Your task to perform on an android device: Search for Italian restaurants on Maps Image 0: 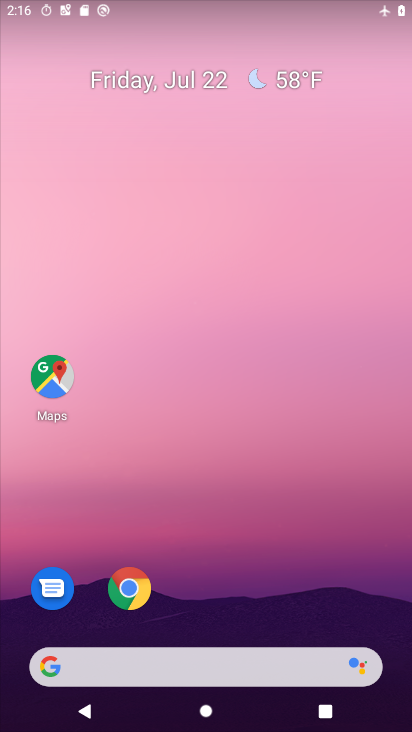
Step 0: press home button
Your task to perform on an android device: Search for Italian restaurants on Maps Image 1: 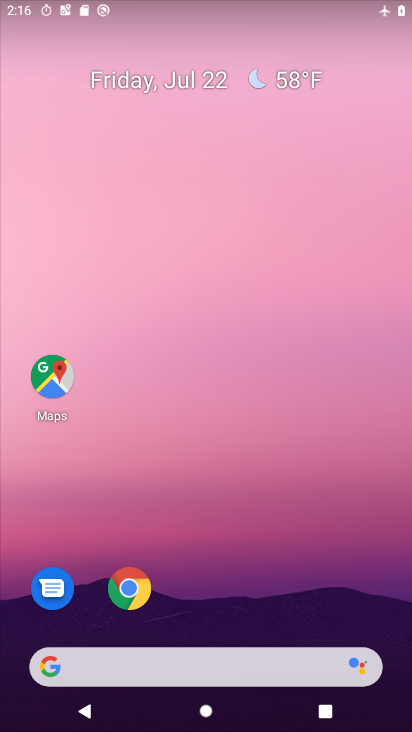
Step 1: click (59, 372)
Your task to perform on an android device: Search for Italian restaurants on Maps Image 2: 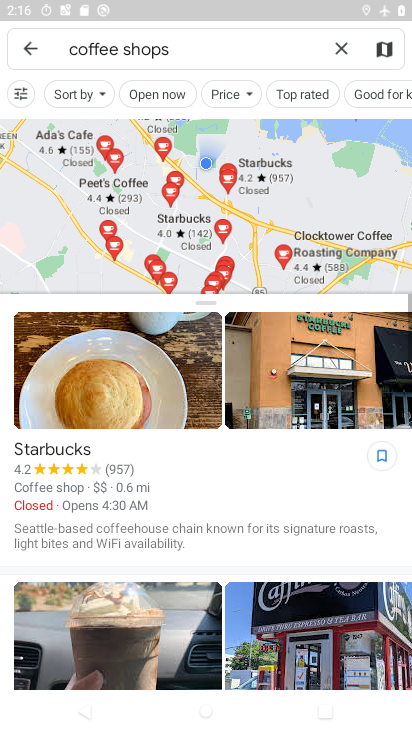
Step 2: click (346, 44)
Your task to perform on an android device: Search for Italian restaurants on Maps Image 3: 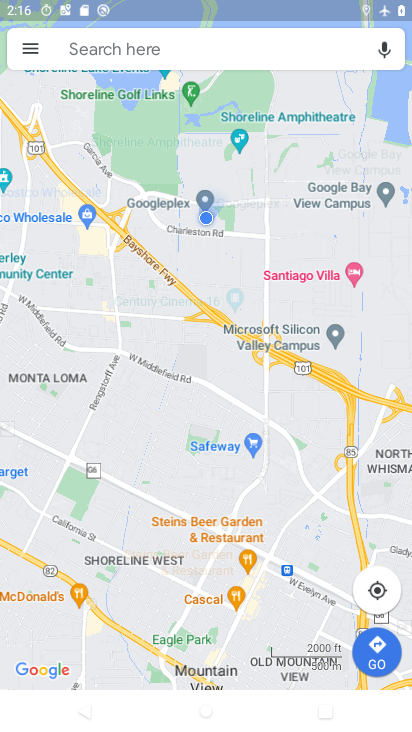
Step 3: click (310, 44)
Your task to perform on an android device: Search for Italian restaurants on Maps Image 4: 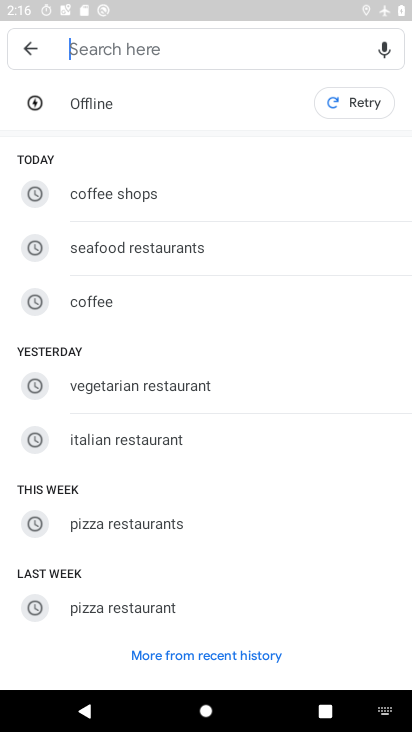
Step 4: type "Italian restaurants"
Your task to perform on an android device: Search for Italian restaurants on Maps Image 5: 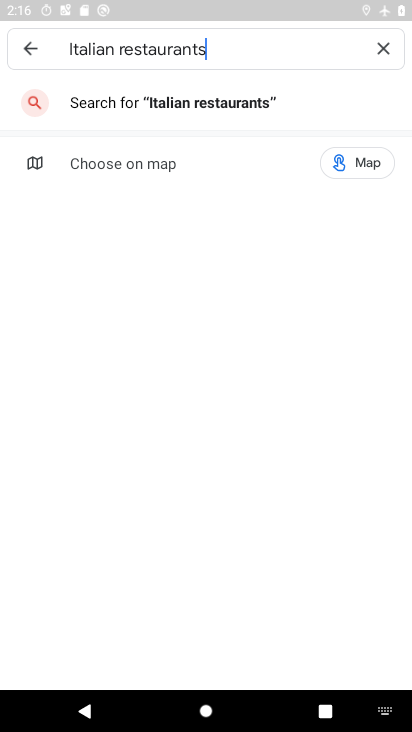
Step 5: click (166, 98)
Your task to perform on an android device: Search for Italian restaurants on Maps Image 6: 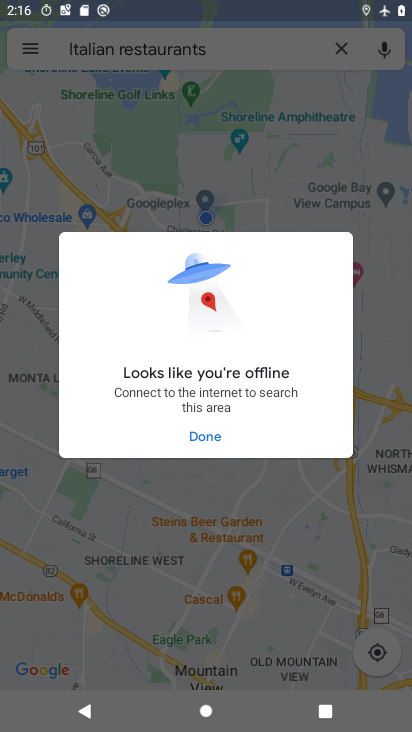
Step 6: click (194, 436)
Your task to perform on an android device: Search for Italian restaurants on Maps Image 7: 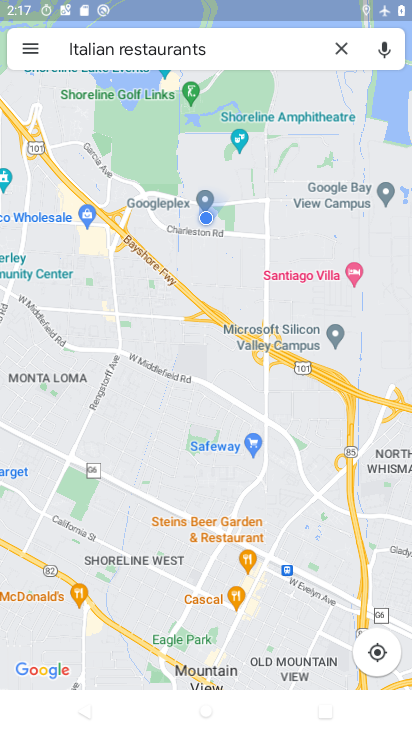
Step 7: drag from (383, 1) to (386, 388)
Your task to perform on an android device: Search for Italian restaurants on Maps Image 8: 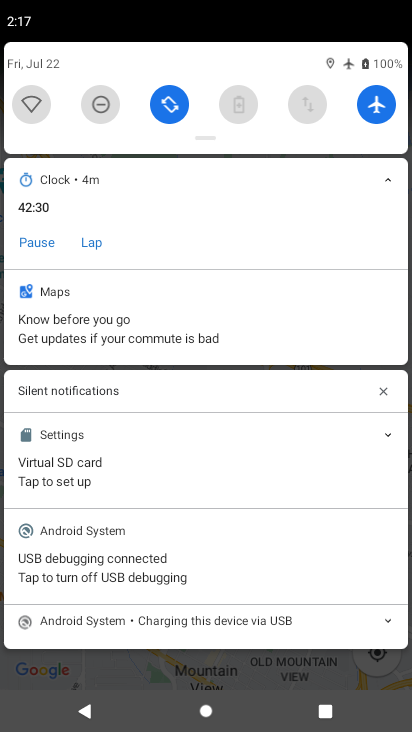
Step 8: click (369, 89)
Your task to perform on an android device: Search for Italian restaurants on Maps Image 9: 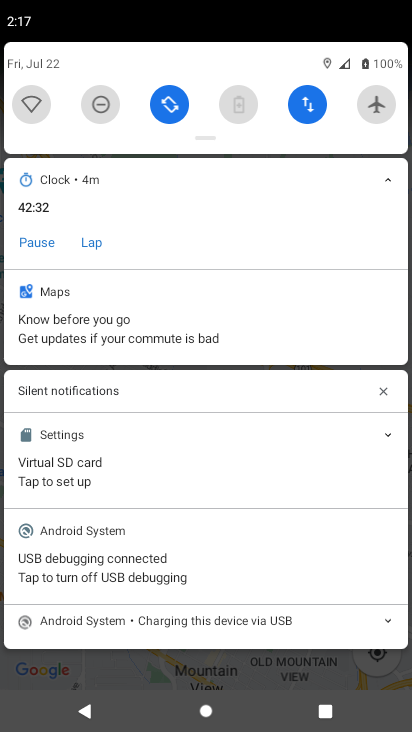
Step 9: drag from (354, 657) to (374, 295)
Your task to perform on an android device: Search for Italian restaurants on Maps Image 10: 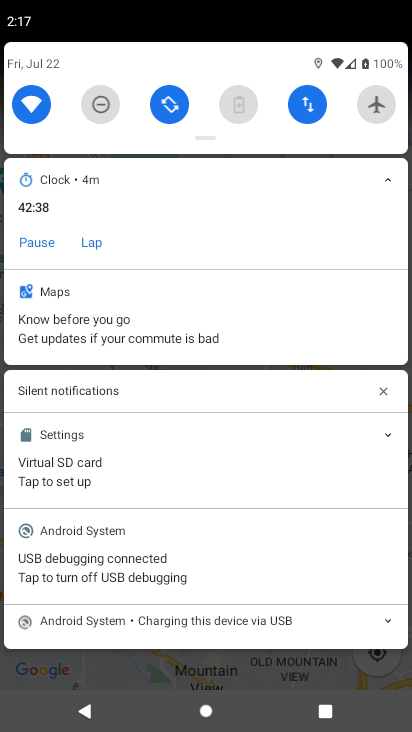
Step 10: drag from (371, 648) to (410, 17)
Your task to perform on an android device: Search for Italian restaurants on Maps Image 11: 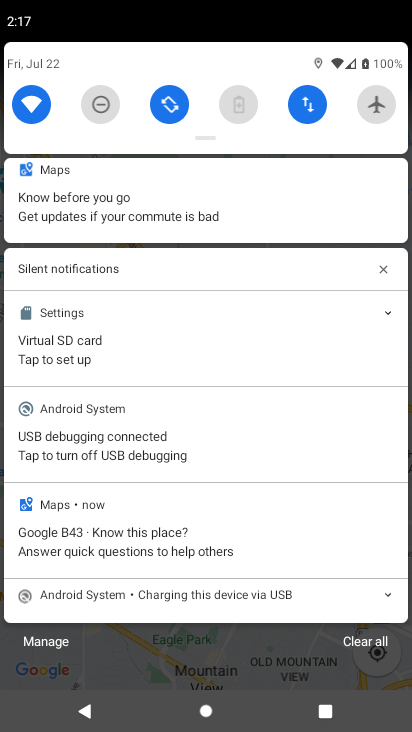
Step 11: drag from (165, 641) to (185, 19)
Your task to perform on an android device: Search for Italian restaurants on Maps Image 12: 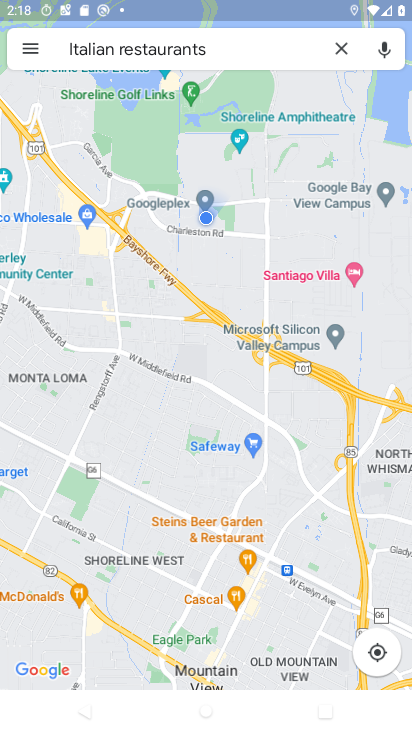
Step 12: click (209, 42)
Your task to perform on an android device: Search for Italian restaurants on Maps Image 13: 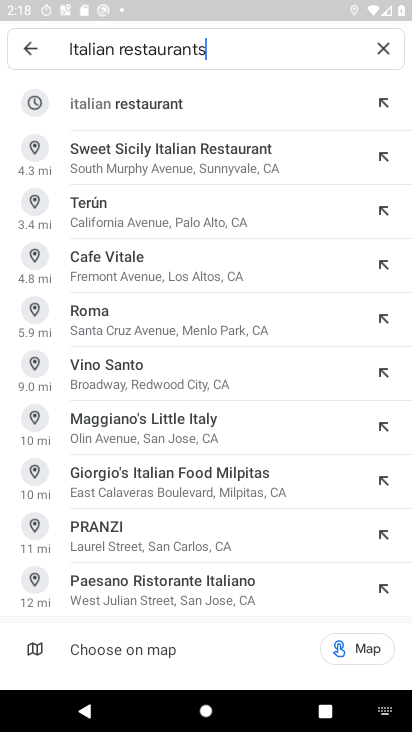
Step 13: click (156, 113)
Your task to perform on an android device: Search for Italian restaurants on Maps Image 14: 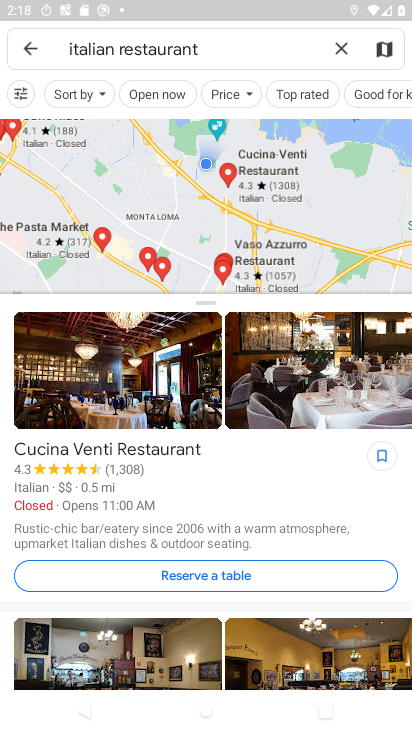
Step 14: task complete